Your task to perform on an android device: open a bookmark in the chrome app Image 0: 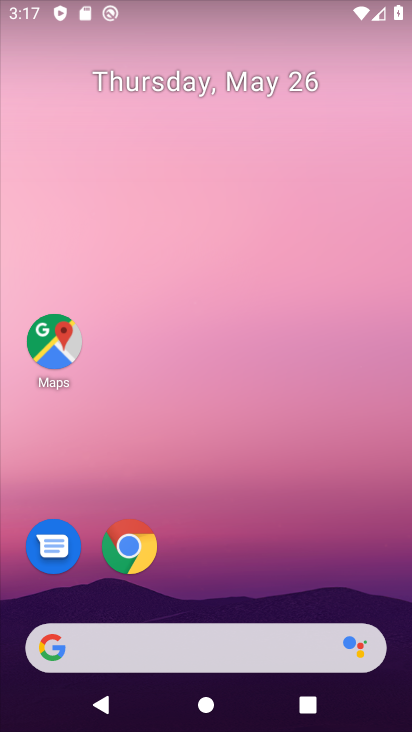
Step 0: click (128, 543)
Your task to perform on an android device: open a bookmark in the chrome app Image 1: 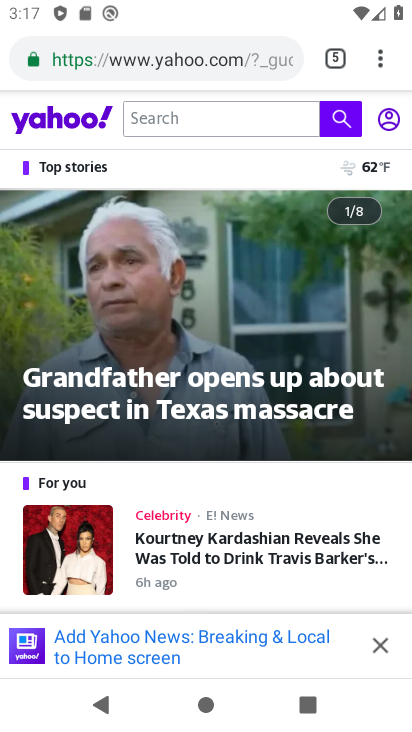
Step 1: click (375, 48)
Your task to perform on an android device: open a bookmark in the chrome app Image 2: 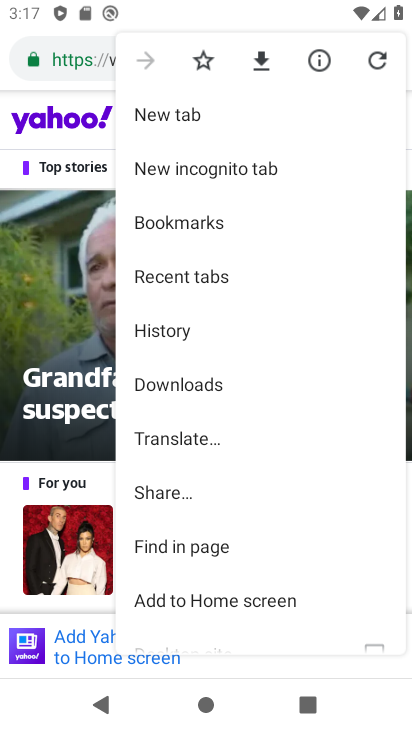
Step 2: click (207, 227)
Your task to perform on an android device: open a bookmark in the chrome app Image 3: 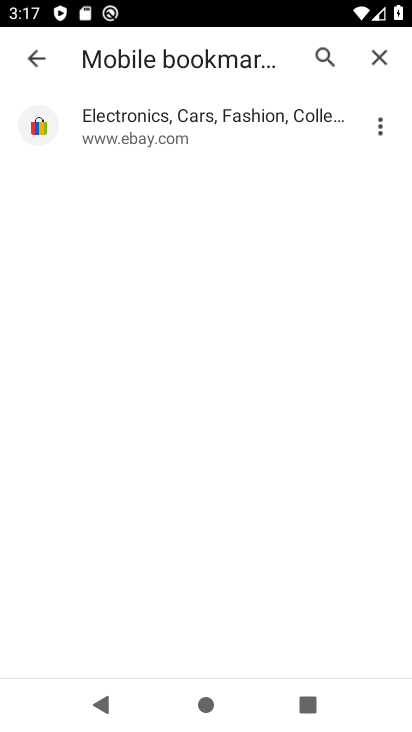
Step 3: click (173, 120)
Your task to perform on an android device: open a bookmark in the chrome app Image 4: 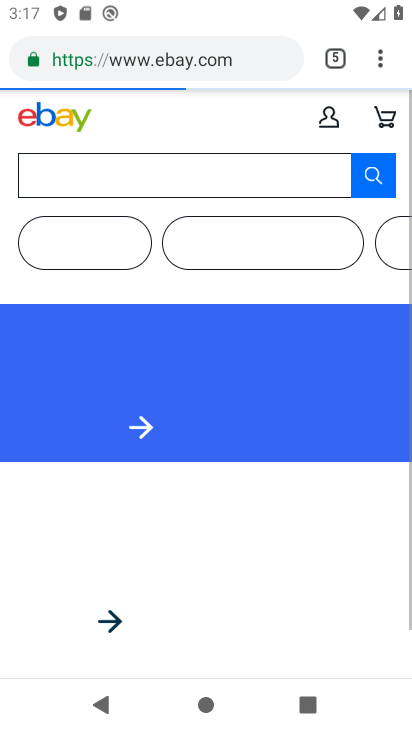
Step 4: task complete